Your task to perform on an android device: empty trash in the gmail app Image 0: 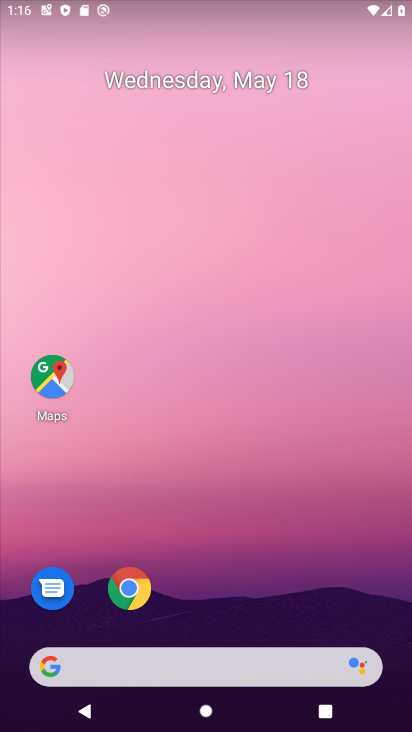
Step 0: drag from (344, 611) to (350, 110)
Your task to perform on an android device: empty trash in the gmail app Image 1: 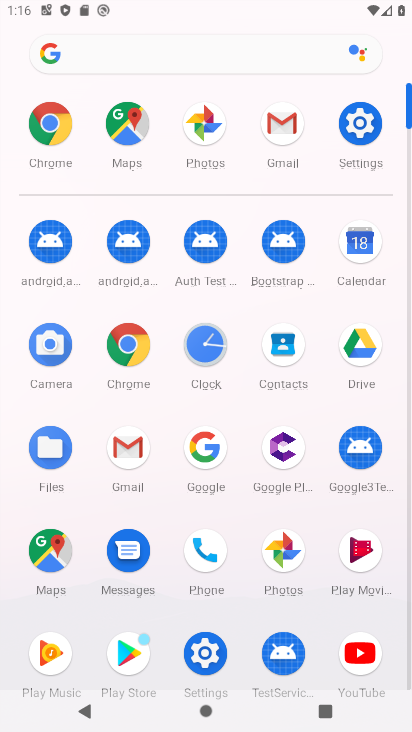
Step 1: click (117, 448)
Your task to perform on an android device: empty trash in the gmail app Image 2: 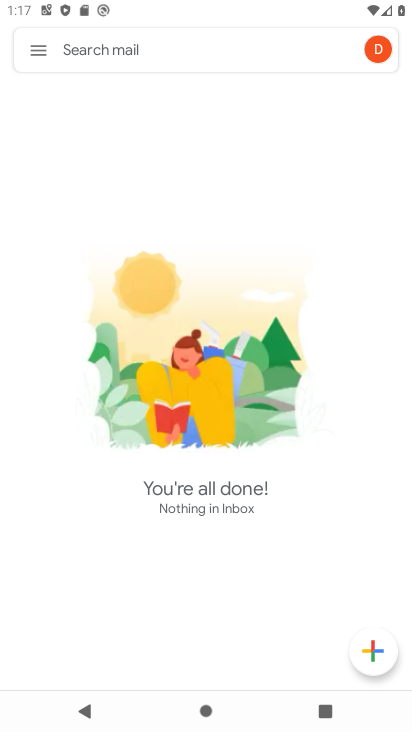
Step 2: click (37, 49)
Your task to perform on an android device: empty trash in the gmail app Image 3: 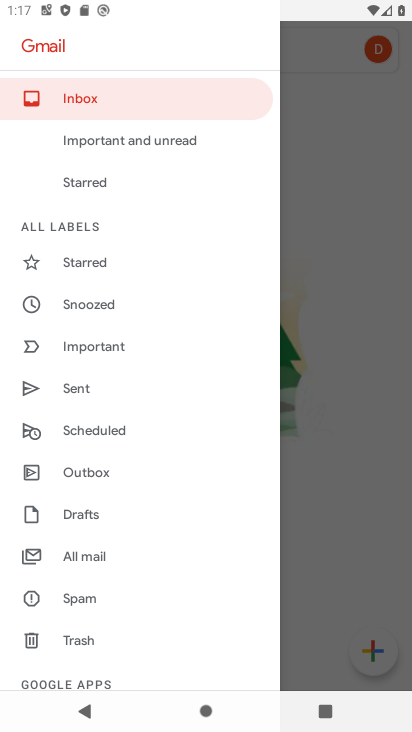
Step 3: drag from (177, 579) to (200, 390)
Your task to perform on an android device: empty trash in the gmail app Image 4: 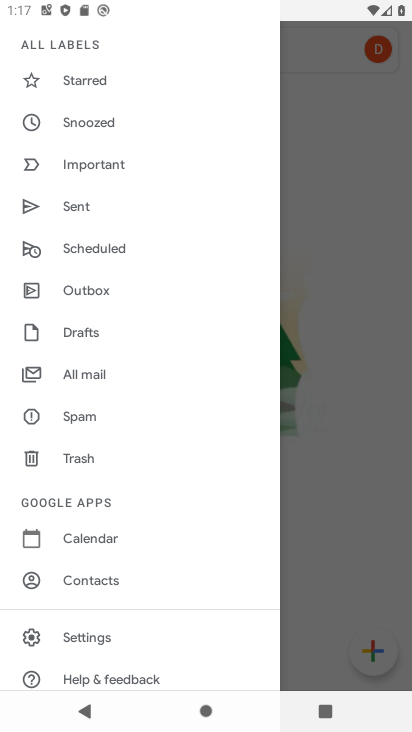
Step 4: drag from (215, 577) to (231, 276)
Your task to perform on an android device: empty trash in the gmail app Image 5: 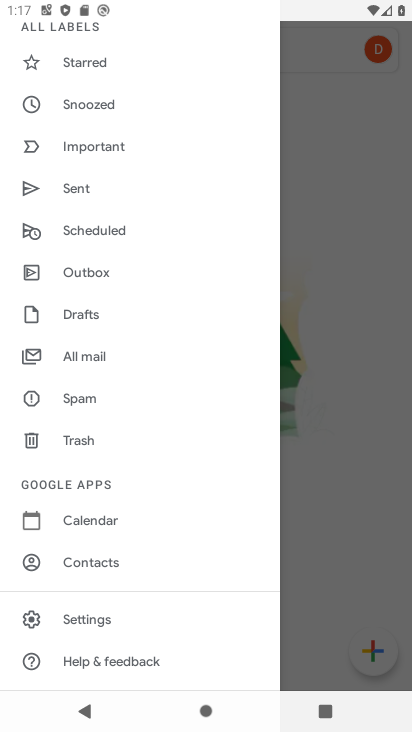
Step 5: drag from (220, 254) to (203, 481)
Your task to perform on an android device: empty trash in the gmail app Image 6: 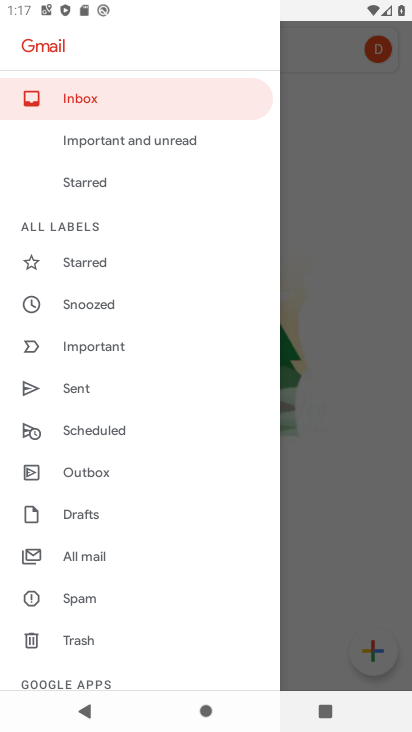
Step 6: drag from (205, 201) to (207, 490)
Your task to perform on an android device: empty trash in the gmail app Image 7: 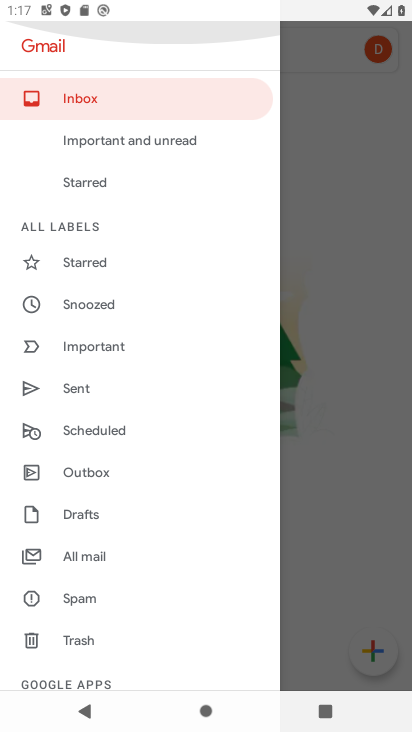
Step 7: drag from (189, 587) to (207, 288)
Your task to perform on an android device: empty trash in the gmail app Image 8: 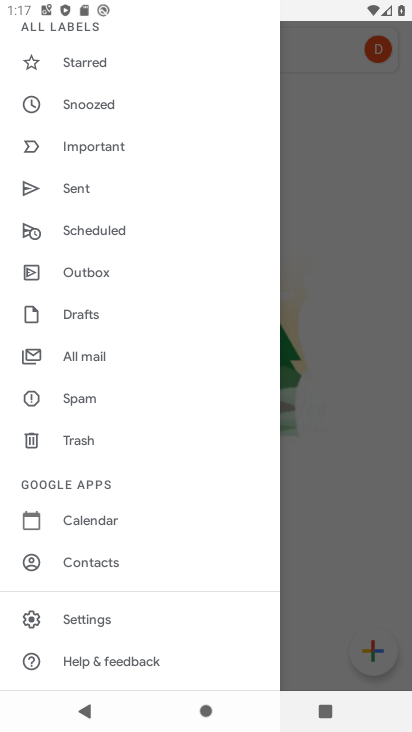
Step 8: click (77, 442)
Your task to perform on an android device: empty trash in the gmail app Image 9: 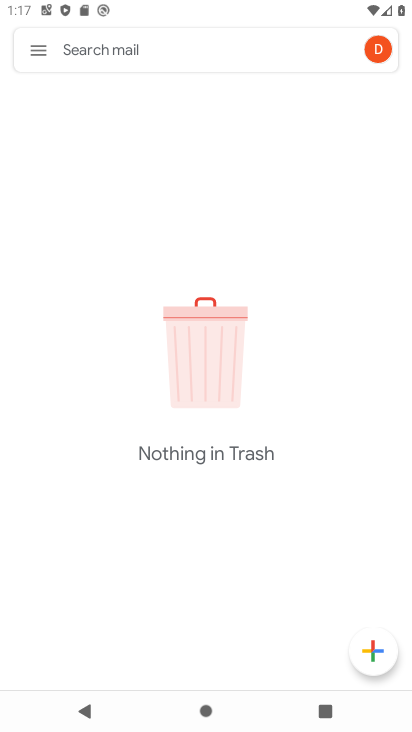
Step 9: task complete